Your task to perform on an android device: turn off notifications in google photos Image 0: 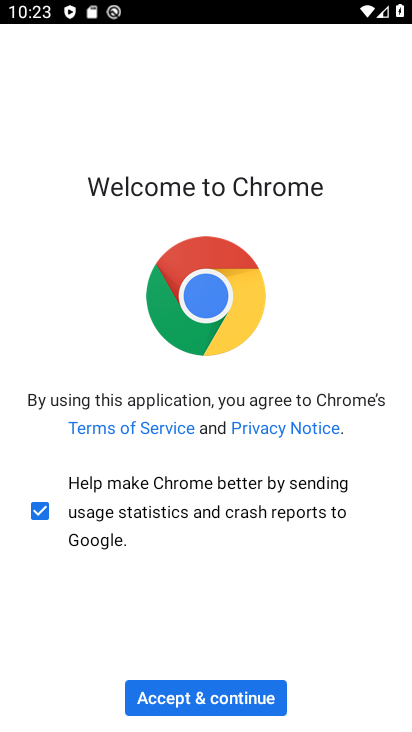
Step 0: press home button
Your task to perform on an android device: turn off notifications in google photos Image 1: 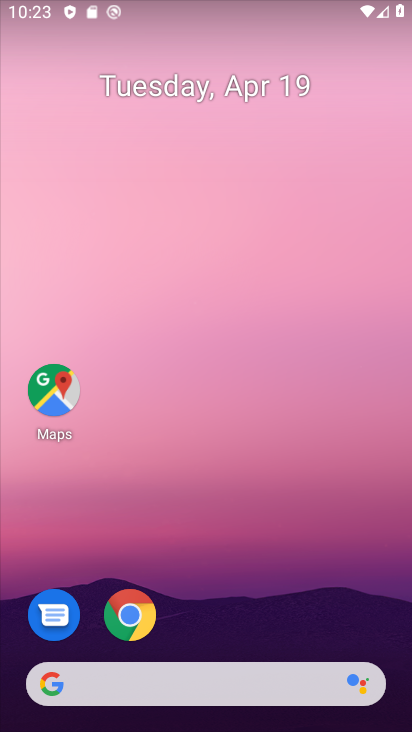
Step 1: drag from (196, 581) to (336, 57)
Your task to perform on an android device: turn off notifications in google photos Image 2: 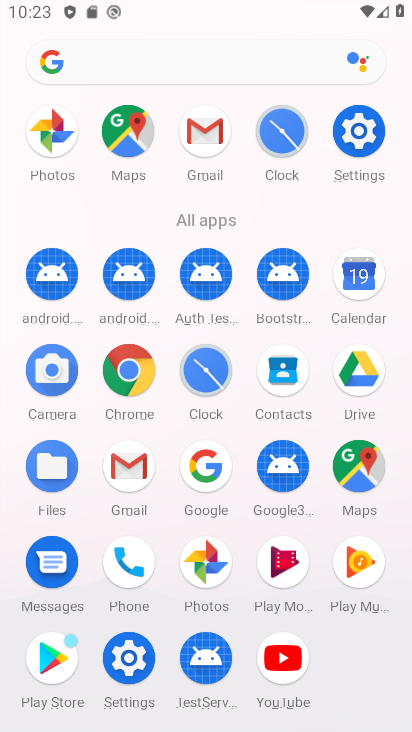
Step 2: click (56, 136)
Your task to perform on an android device: turn off notifications in google photos Image 3: 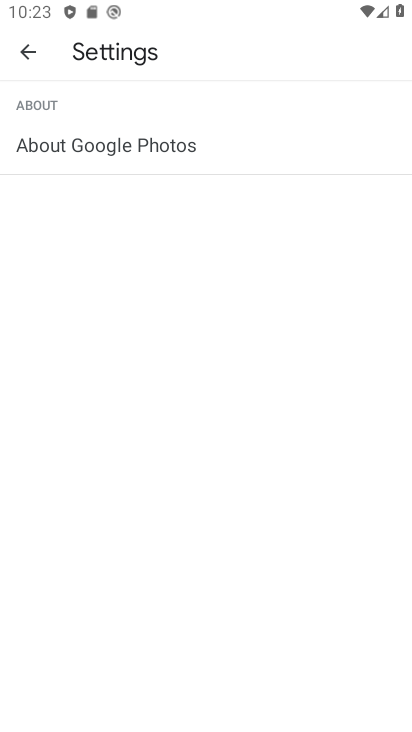
Step 3: click (31, 59)
Your task to perform on an android device: turn off notifications in google photos Image 4: 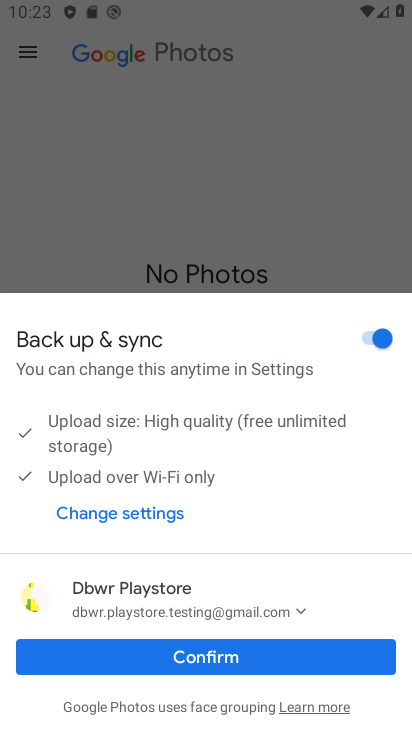
Step 4: click (230, 652)
Your task to perform on an android device: turn off notifications in google photos Image 5: 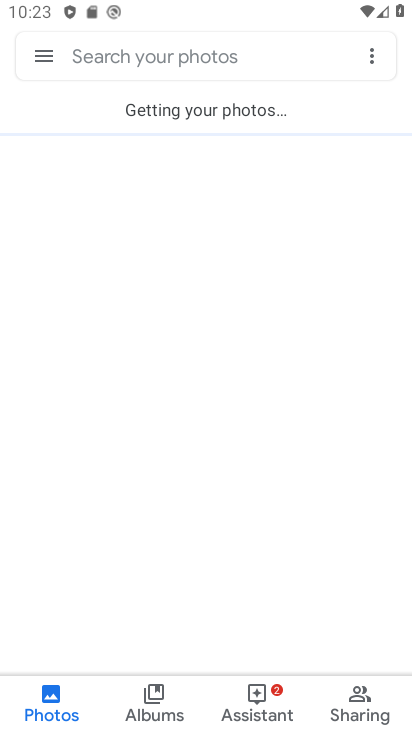
Step 5: click (41, 55)
Your task to perform on an android device: turn off notifications in google photos Image 6: 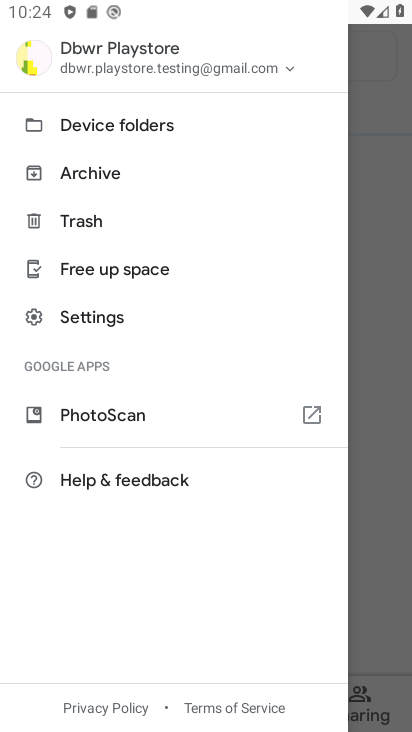
Step 6: click (101, 320)
Your task to perform on an android device: turn off notifications in google photos Image 7: 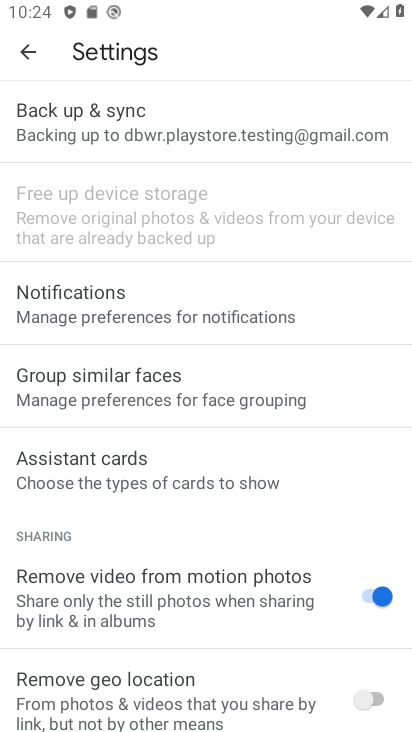
Step 7: click (115, 319)
Your task to perform on an android device: turn off notifications in google photos Image 8: 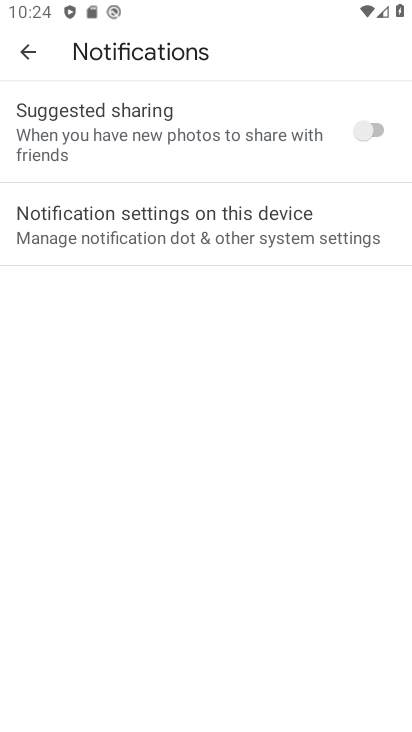
Step 8: drag from (145, 416) to (342, 130)
Your task to perform on an android device: turn off notifications in google photos Image 9: 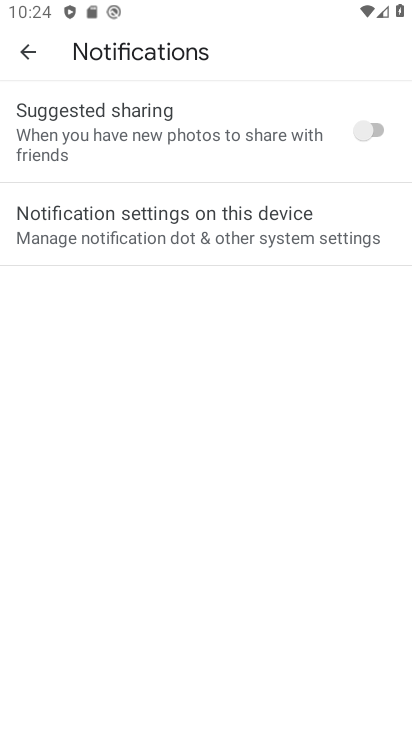
Step 9: click (303, 227)
Your task to perform on an android device: turn off notifications in google photos Image 10: 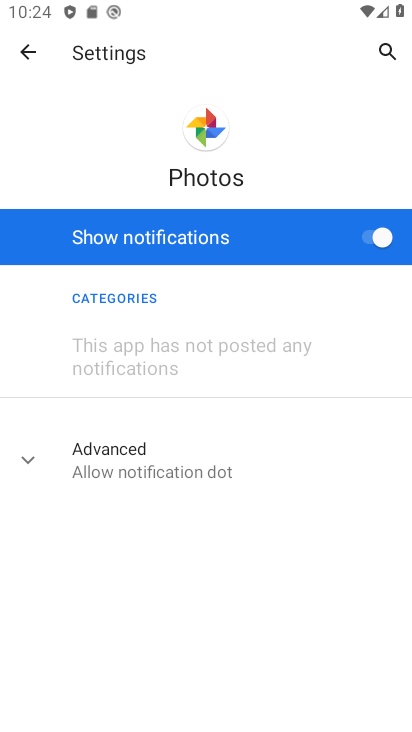
Step 10: click (370, 234)
Your task to perform on an android device: turn off notifications in google photos Image 11: 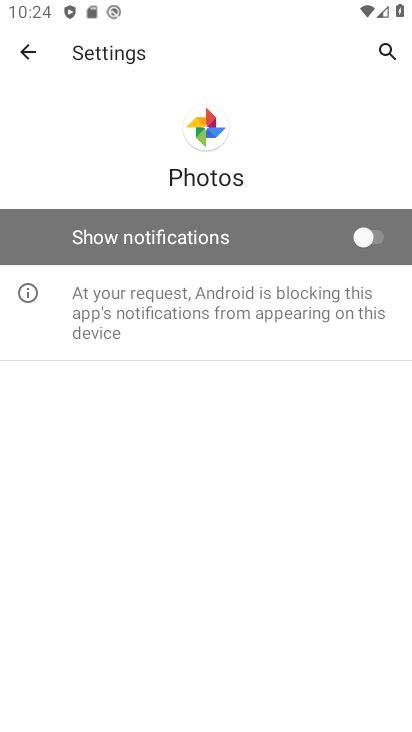
Step 11: task complete